Your task to perform on an android device: Do I have any events today? Image 0: 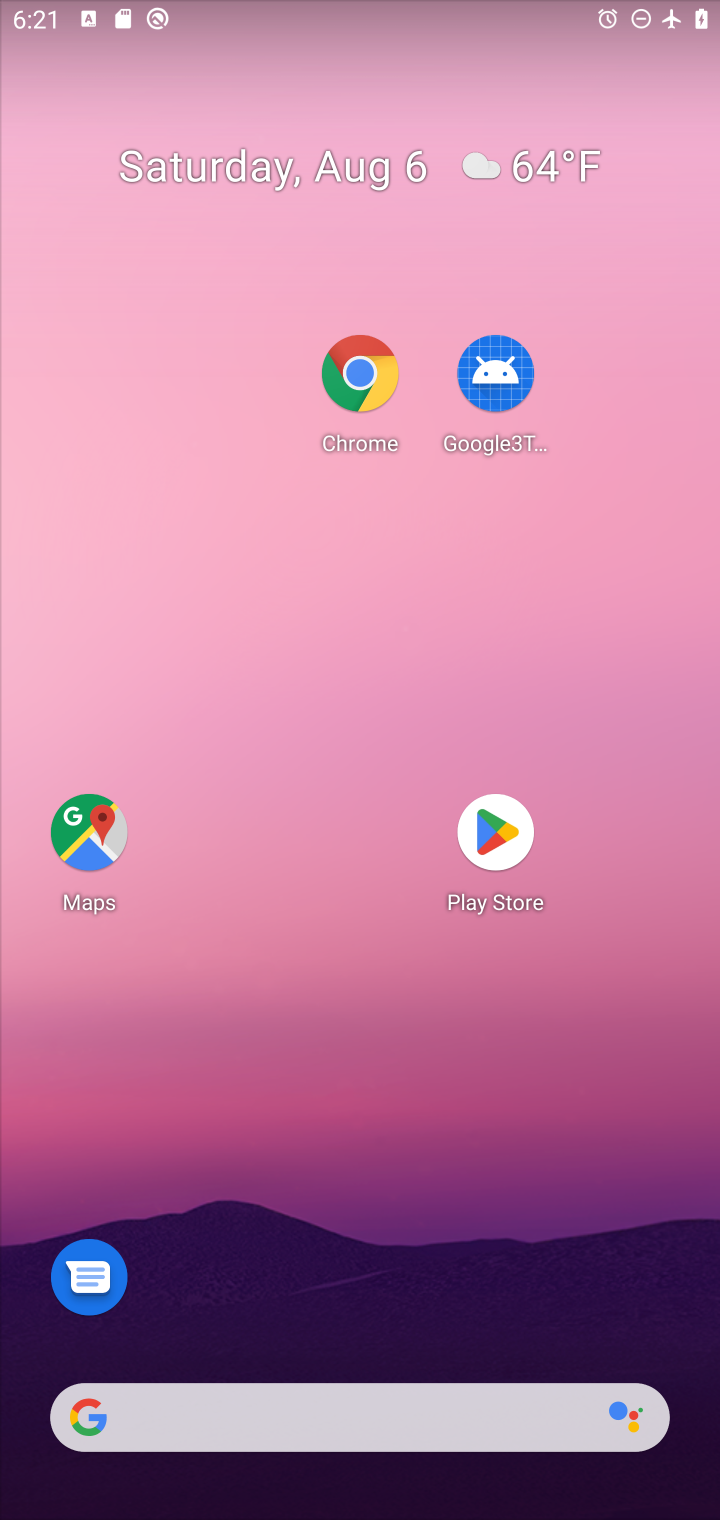
Step 0: drag from (503, 1430) to (455, 142)
Your task to perform on an android device: Do I have any events today? Image 1: 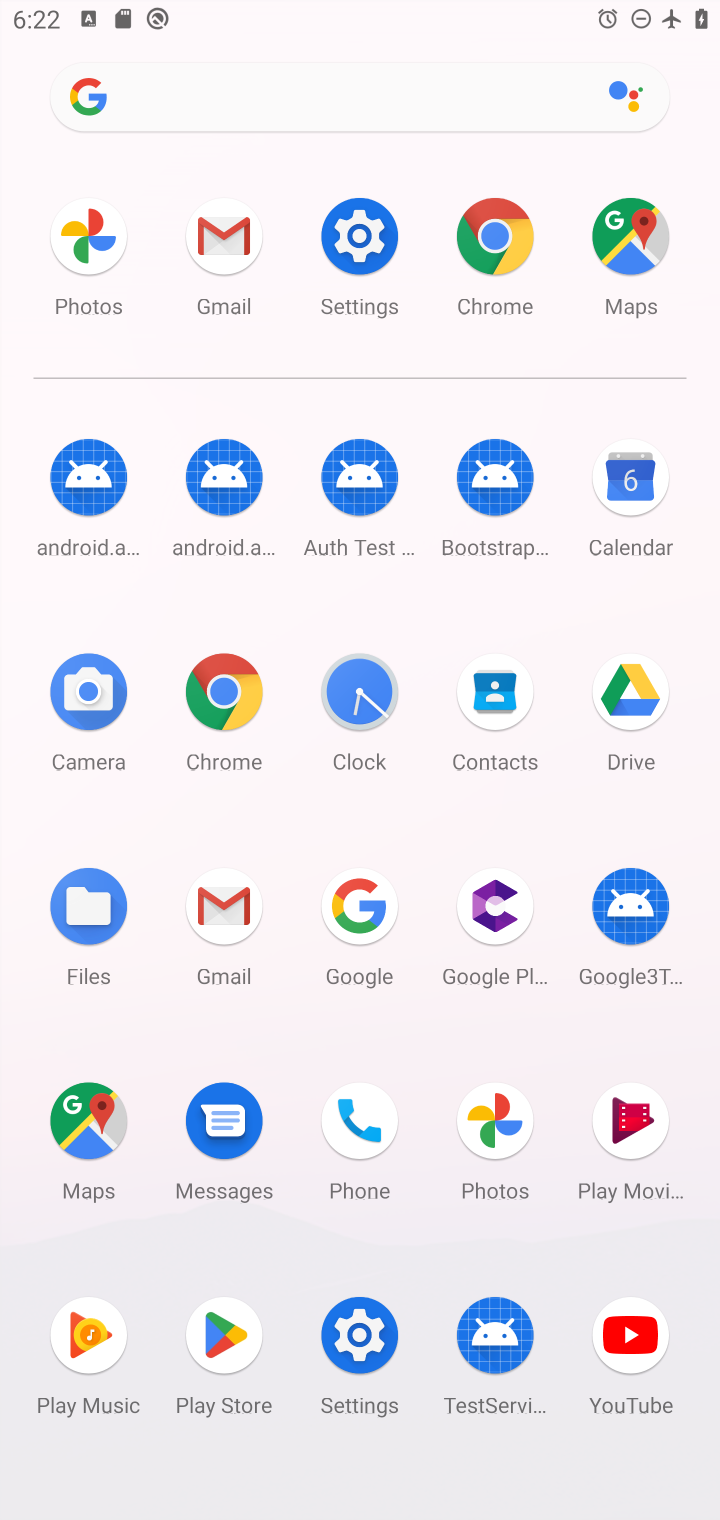
Step 1: click (634, 496)
Your task to perform on an android device: Do I have any events today? Image 2: 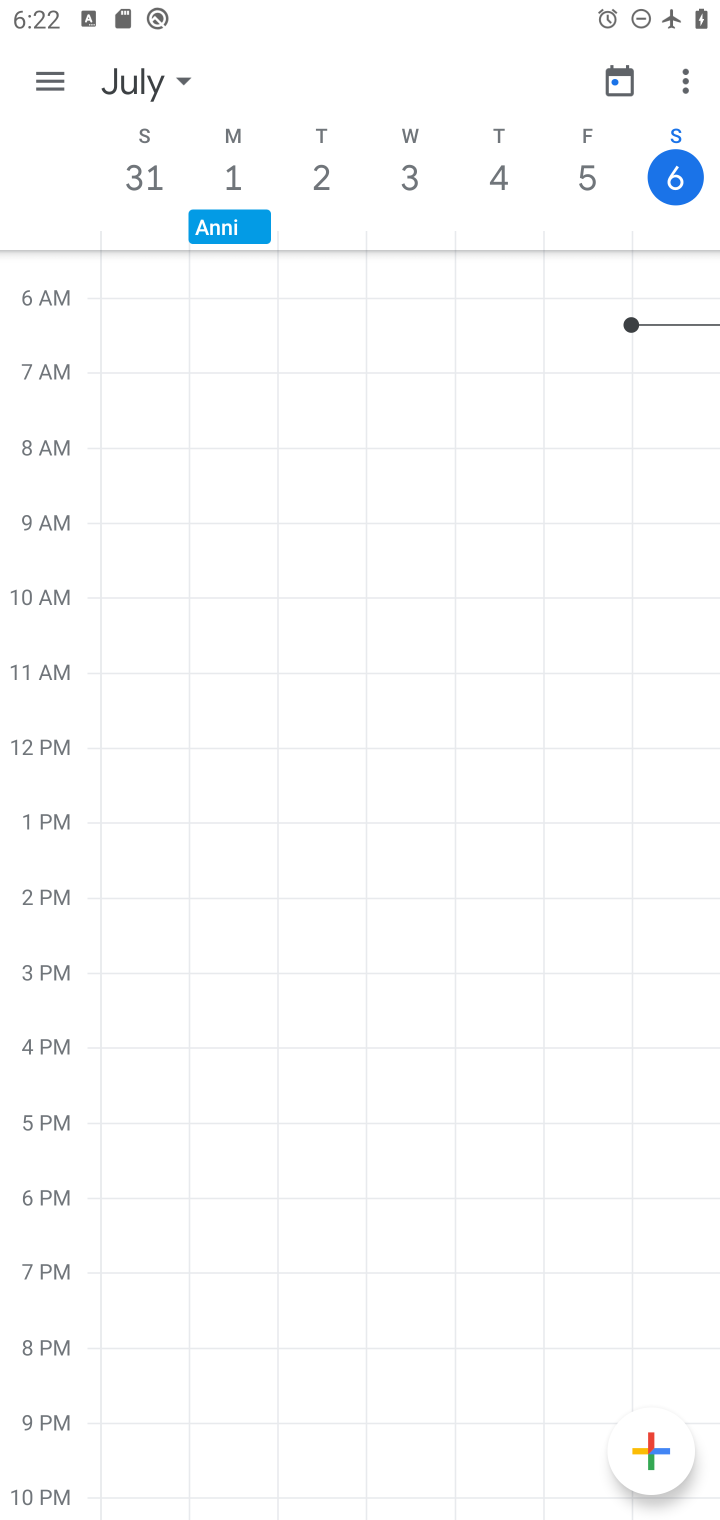
Step 2: click (177, 80)
Your task to perform on an android device: Do I have any events today? Image 3: 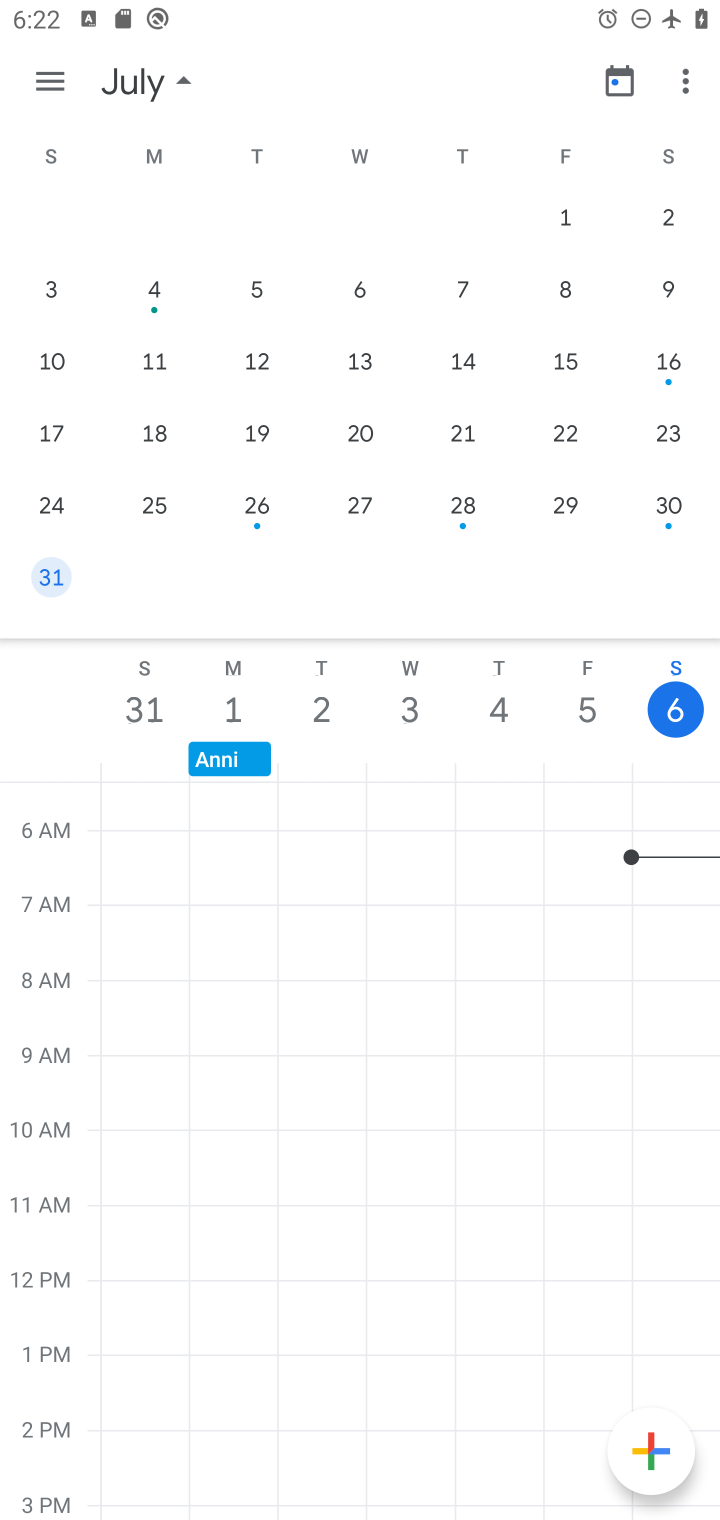
Step 3: task complete